Your task to perform on an android device: Search for flights from NYC to Sydney Image 0: 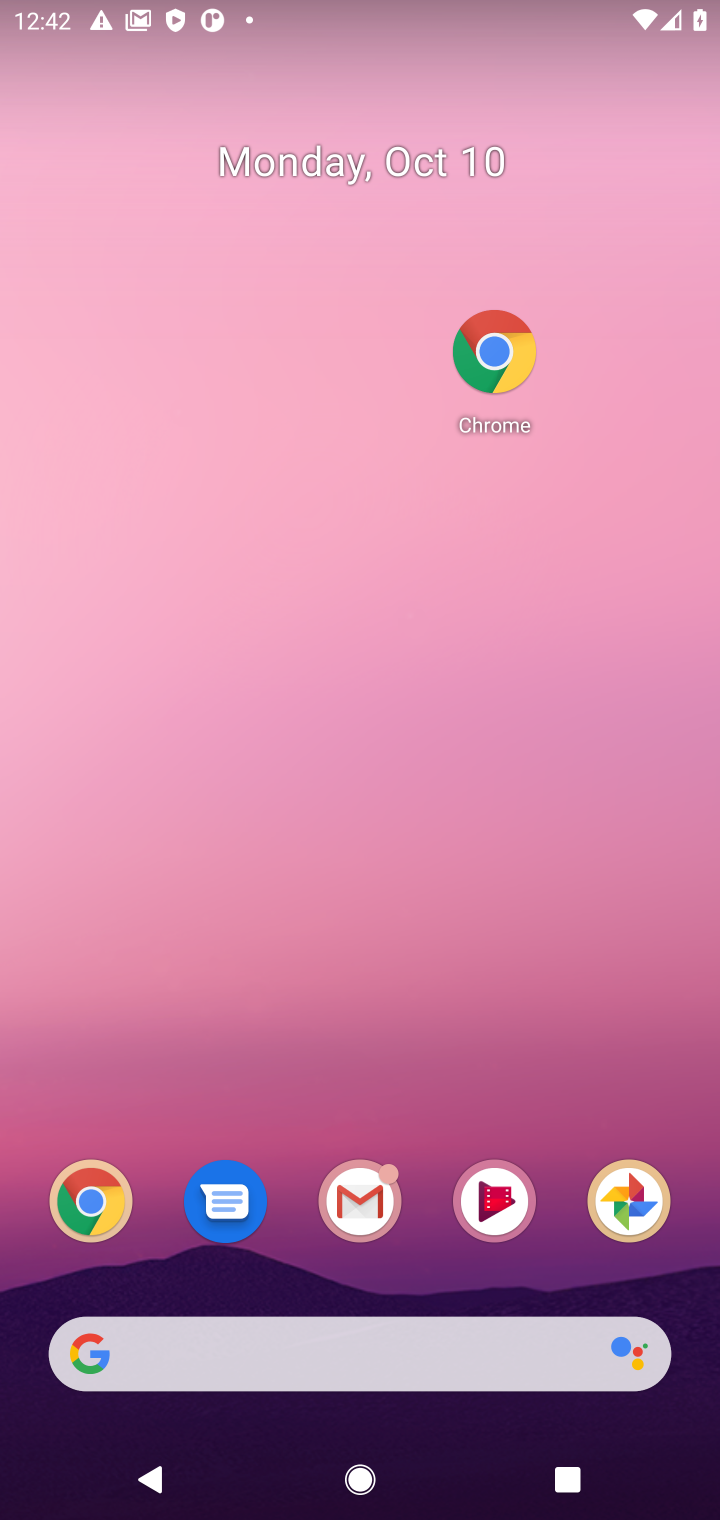
Step 0: click (491, 364)
Your task to perform on an android device: Search for flights from NYC to Sydney Image 1: 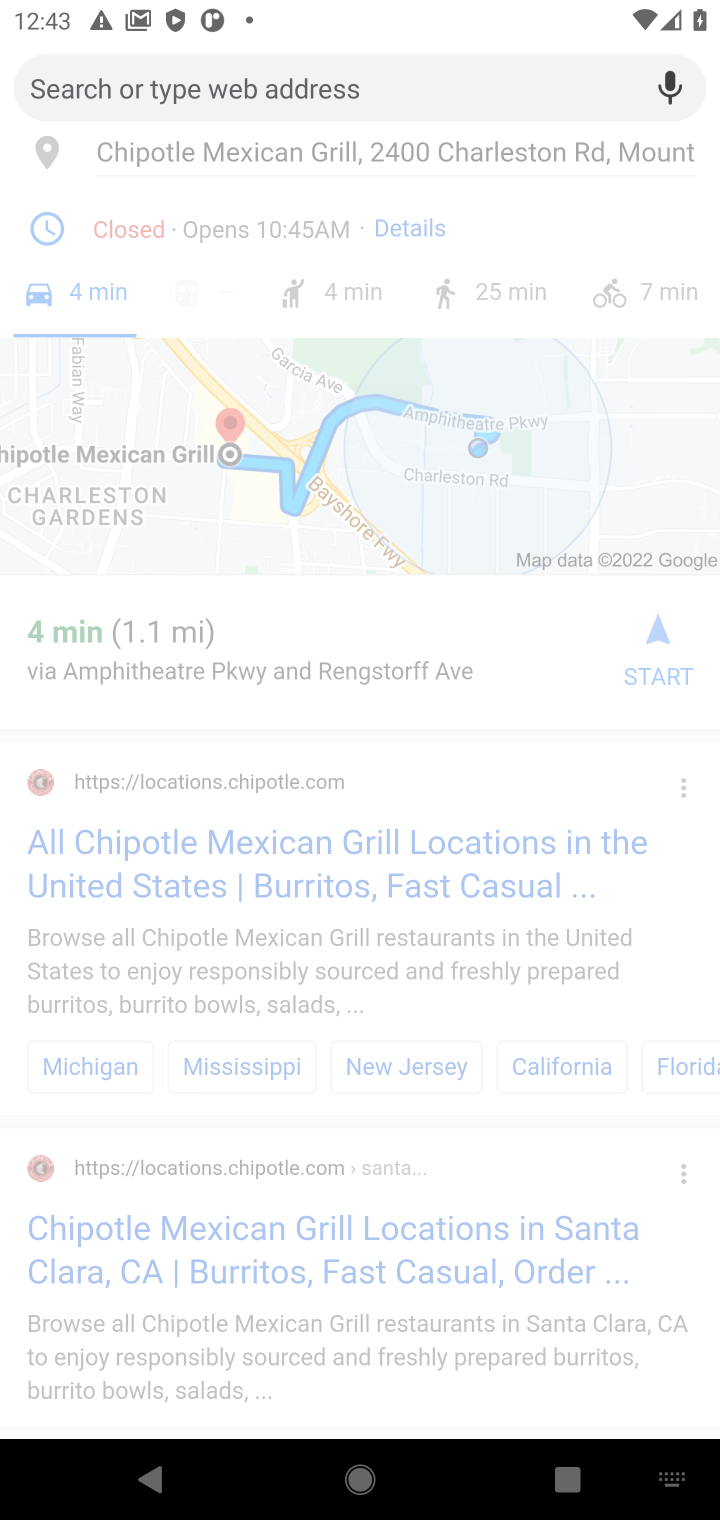
Step 1: type "flights from NYC to Sydney"
Your task to perform on an android device: Search for flights from NYC to Sydney Image 2: 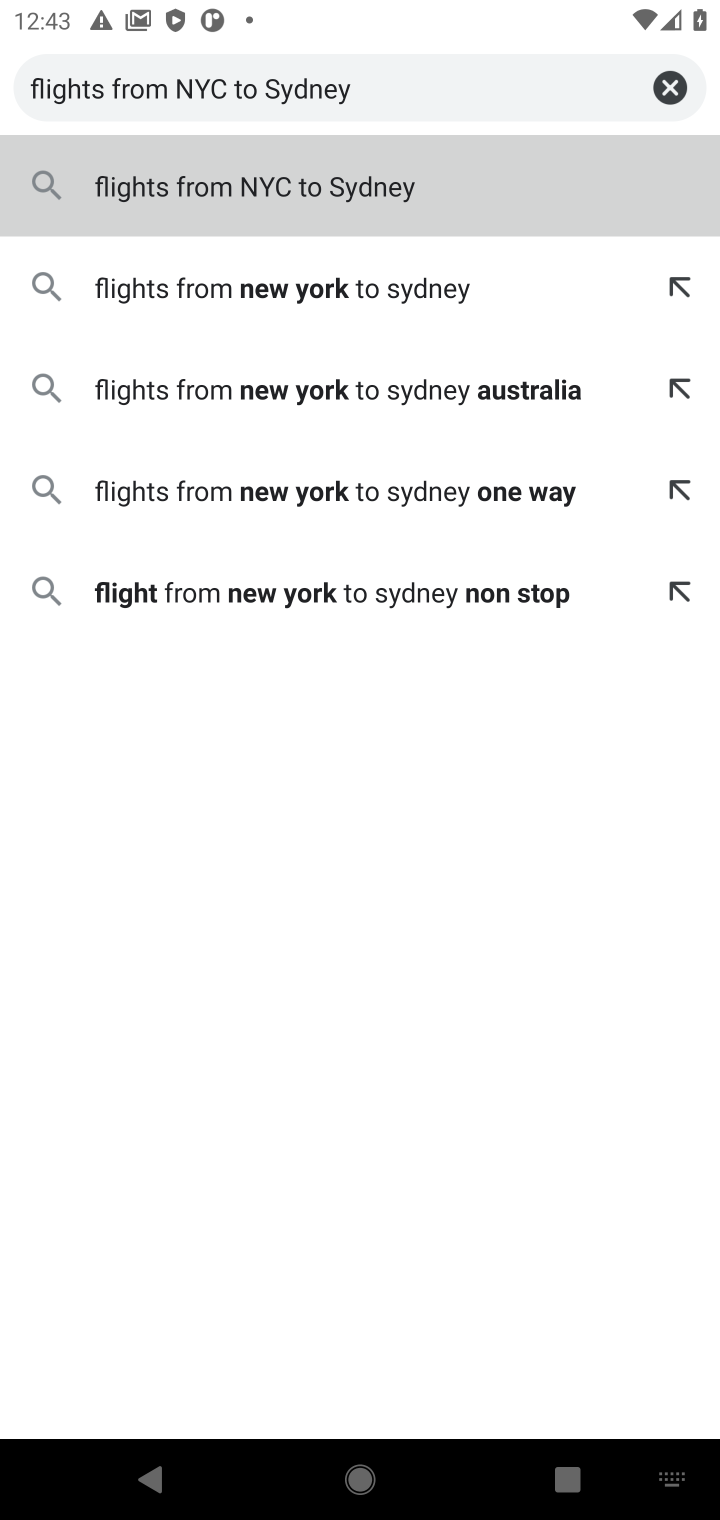
Step 2: click (276, 197)
Your task to perform on an android device: Search for flights from NYC to Sydney Image 3: 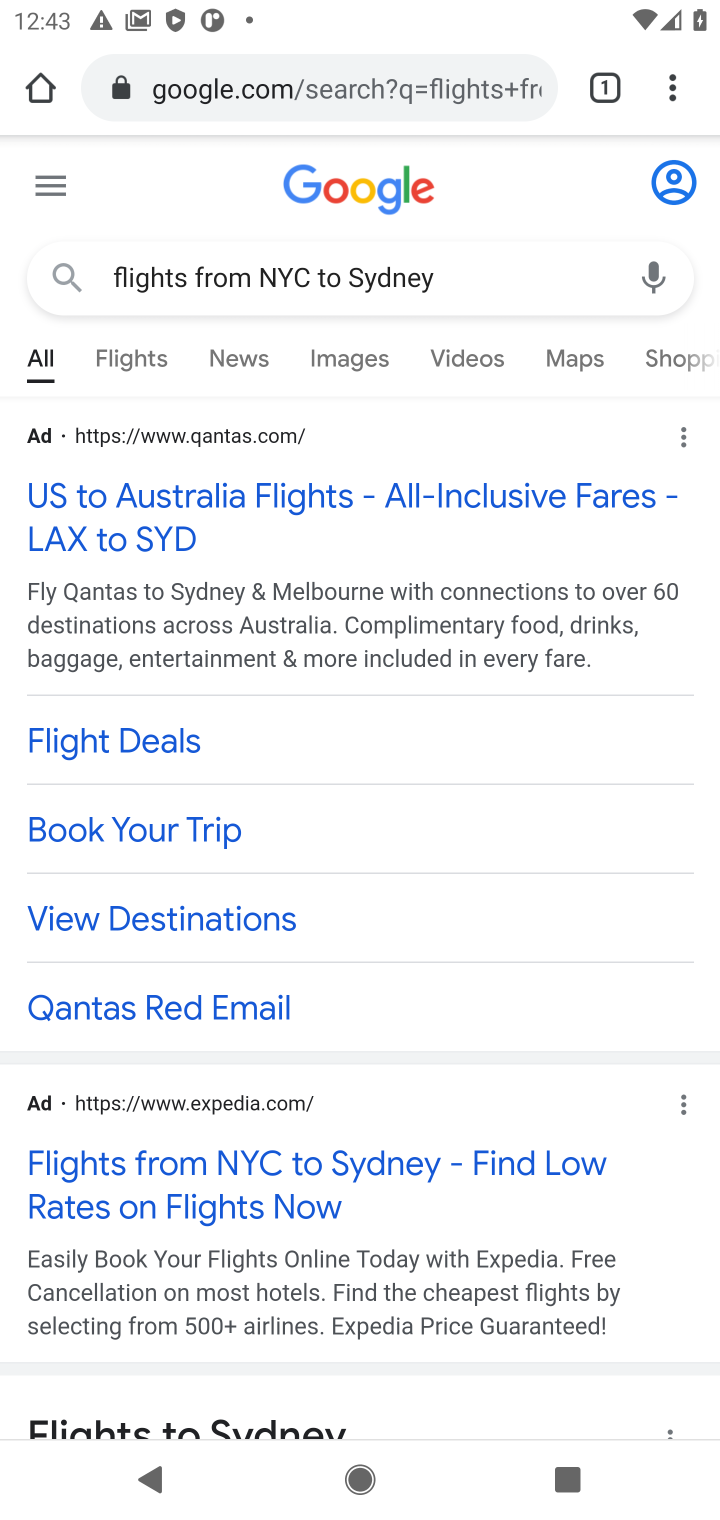
Step 3: click (247, 1166)
Your task to perform on an android device: Search for flights from NYC to Sydney Image 4: 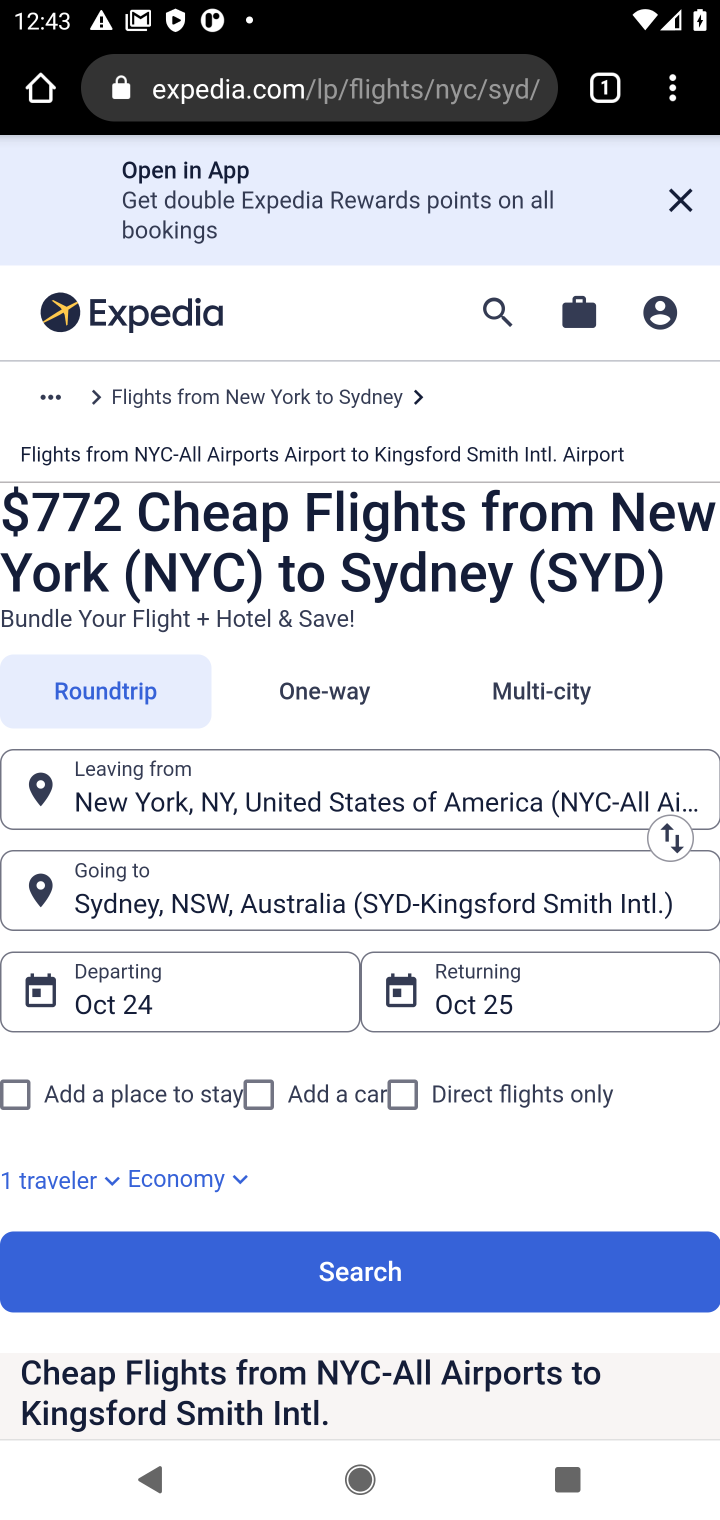
Step 4: task complete